Your task to perform on an android device: Open the stopwatch Image 0: 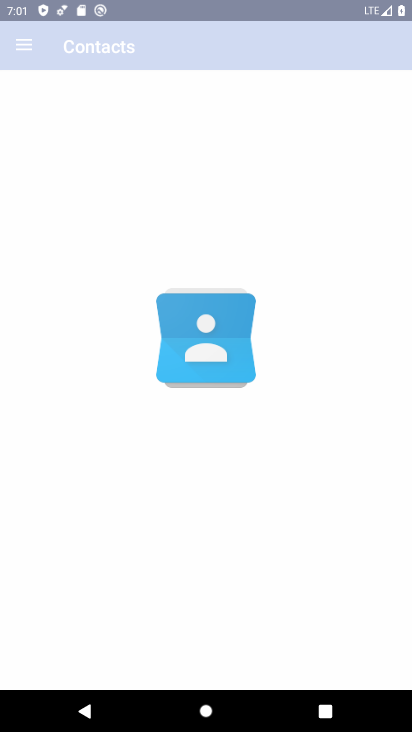
Step 0: drag from (357, 613) to (233, 75)
Your task to perform on an android device: Open the stopwatch Image 1: 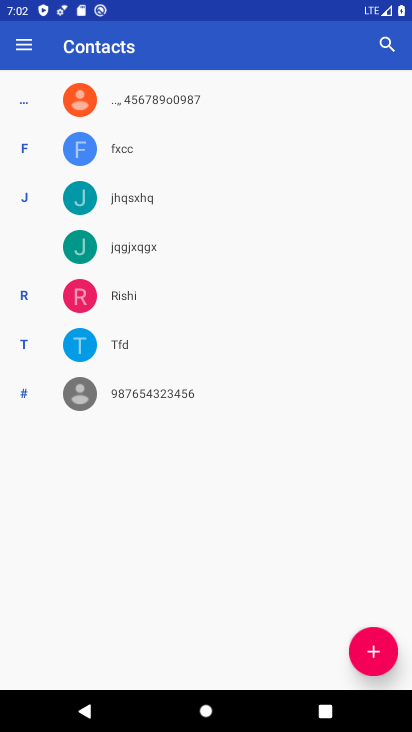
Step 1: press home button
Your task to perform on an android device: Open the stopwatch Image 2: 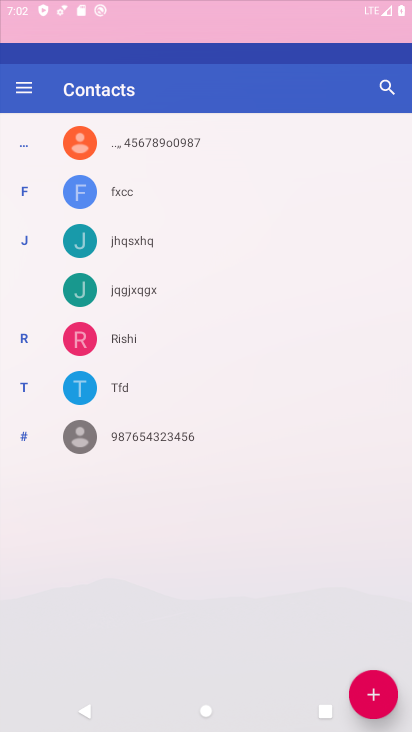
Step 2: drag from (410, 654) to (359, 59)
Your task to perform on an android device: Open the stopwatch Image 3: 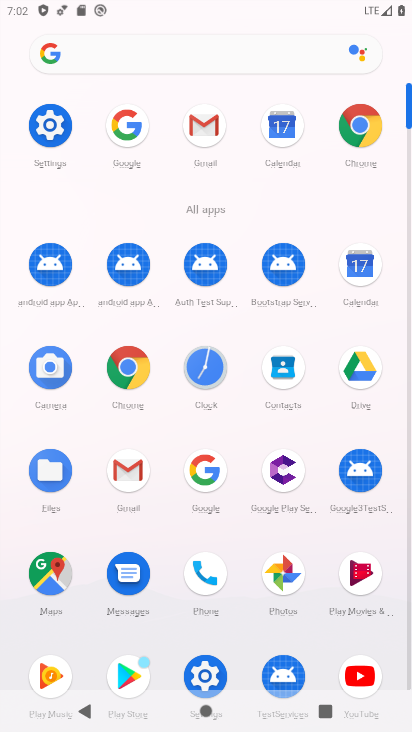
Step 3: click (198, 382)
Your task to perform on an android device: Open the stopwatch Image 4: 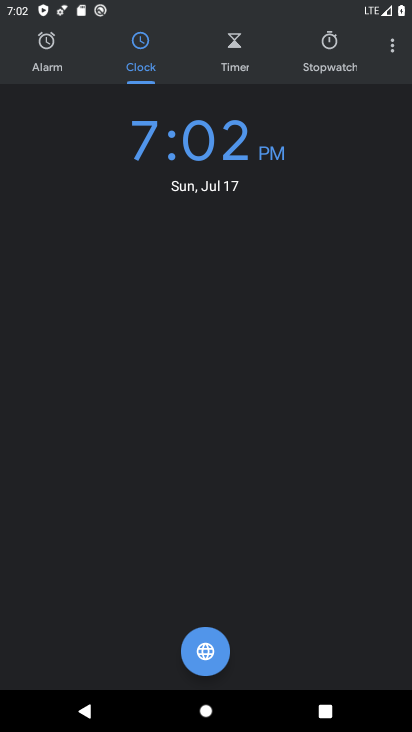
Step 4: click (337, 25)
Your task to perform on an android device: Open the stopwatch Image 5: 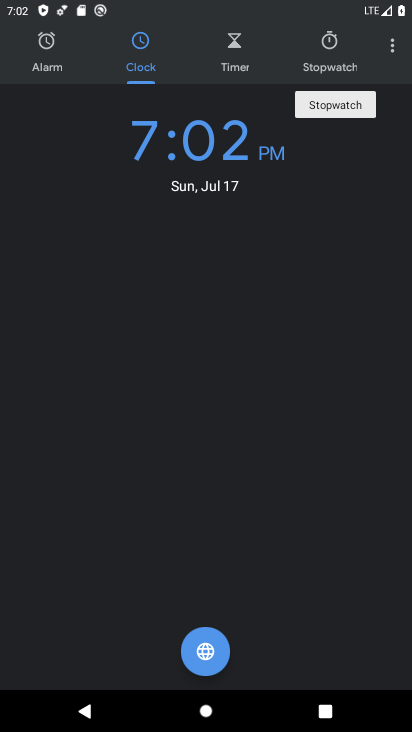
Step 5: click (336, 48)
Your task to perform on an android device: Open the stopwatch Image 6: 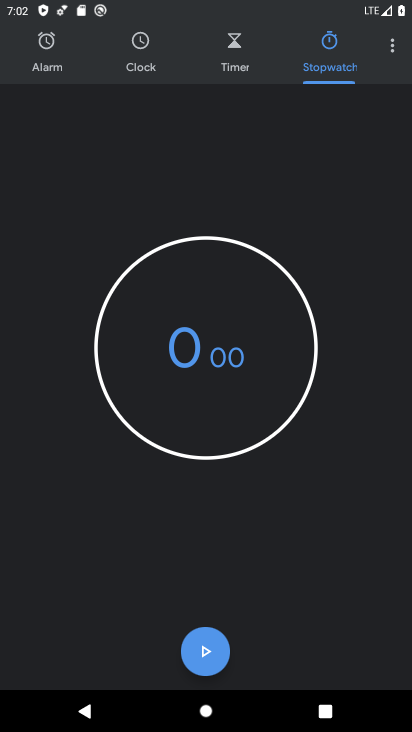
Step 6: task complete